Your task to perform on an android device: change the upload size in google photos Image 0: 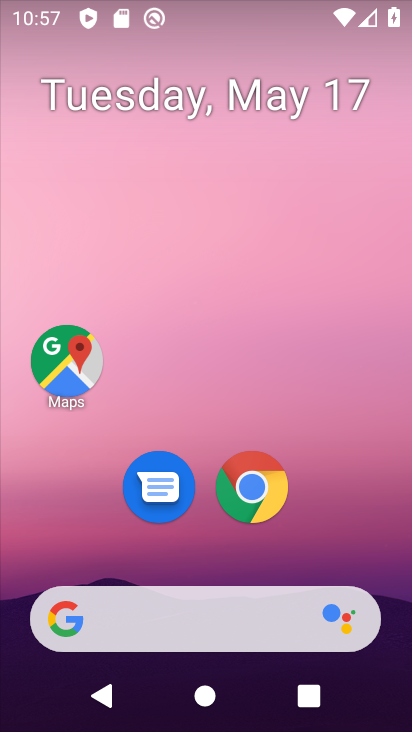
Step 0: press home button
Your task to perform on an android device: change the upload size in google photos Image 1: 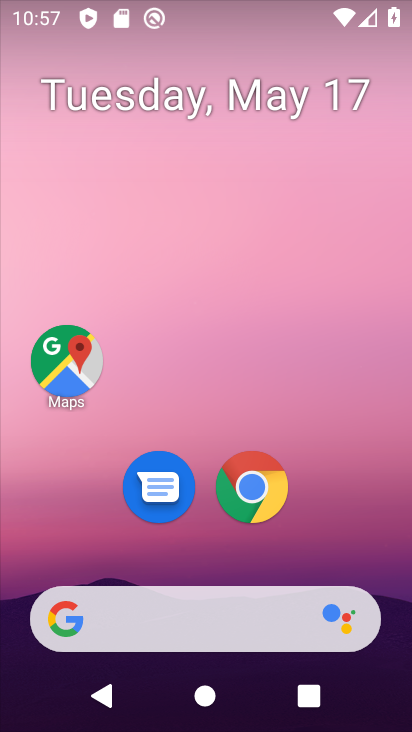
Step 1: drag from (248, 561) to (241, 81)
Your task to perform on an android device: change the upload size in google photos Image 2: 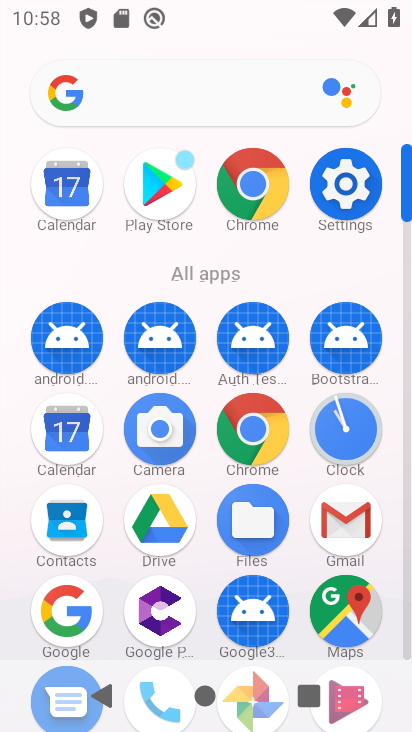
Step 2: click (408, 655)
Your task to perform on an android device: change the upload size in google photos Image 3: 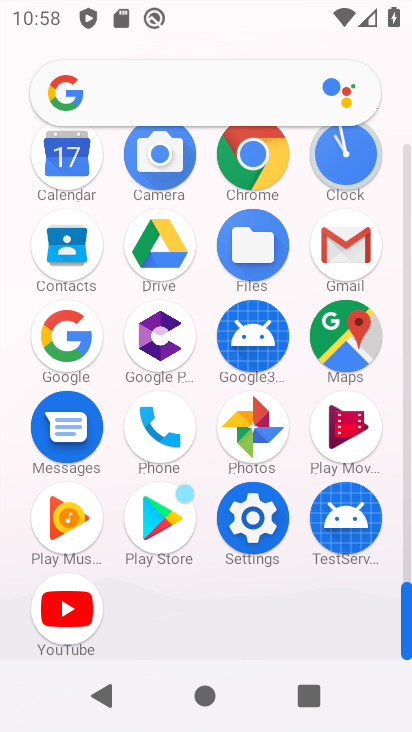
Step 3: click (247, 429)
Your task to perform on an android device: change the upload size in google photos Image 4: 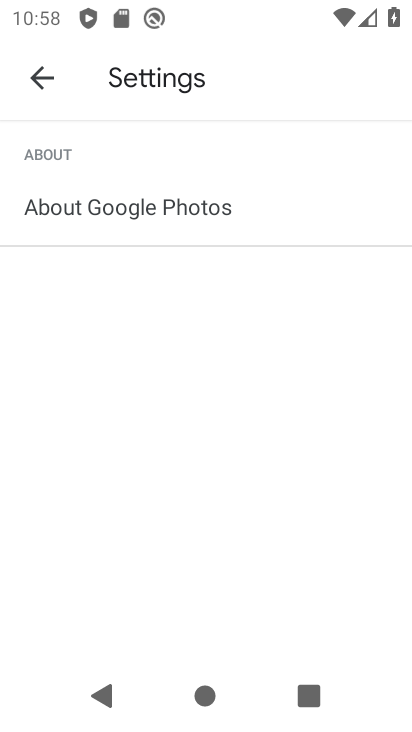
Step 4: click (31, 79)
Your task to perform on an android device: change the upload size in google photos Image 5: 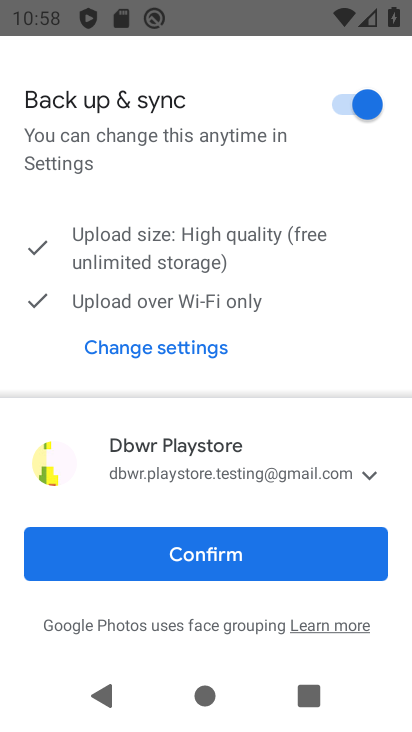
Step 5: click (122, 567)
Your task to perform on an android device: change the upload size in google photos Image 6: 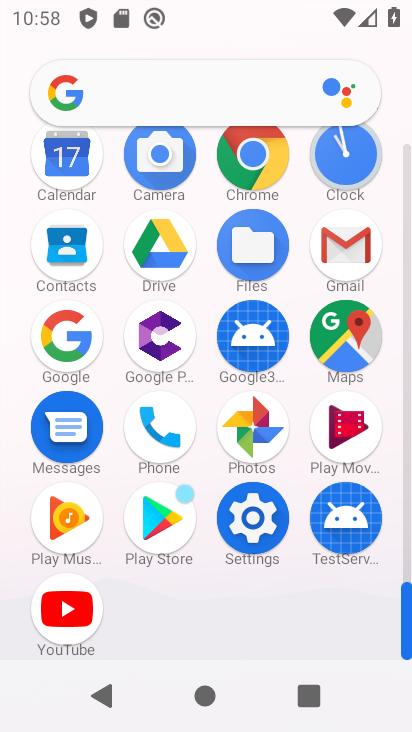
Step 6: click (255, 425)
Your task to perform on an android device: change the upload size in google photos Image 7: 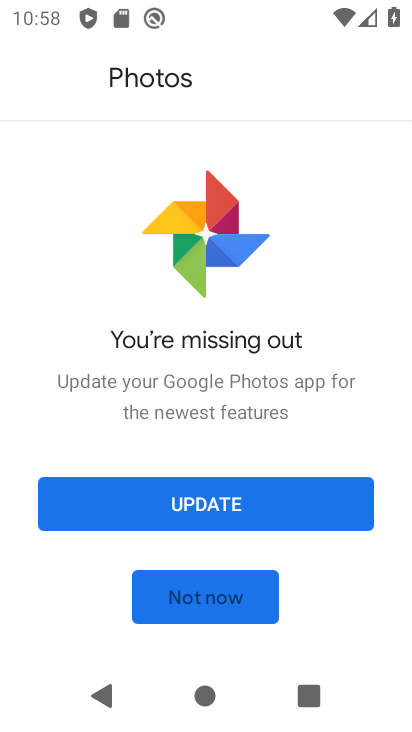
Step 7: click (137, 507)
Your task to perform on an android device: change the upload size in google photos Image 8: 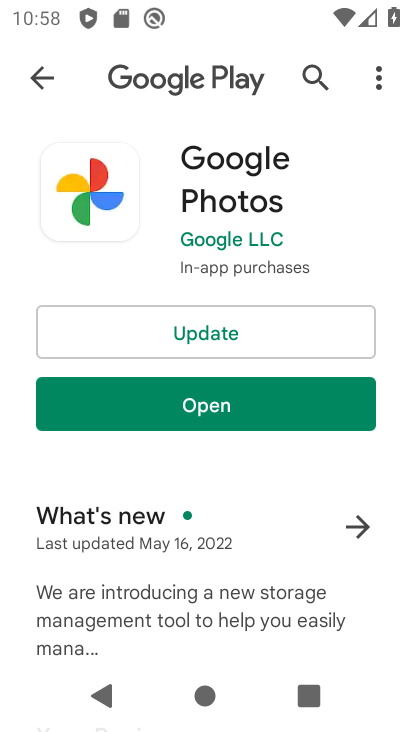
Step 8: click (165, 310)
Your task to perform on an android device: change the upload size in google photos Image 9: 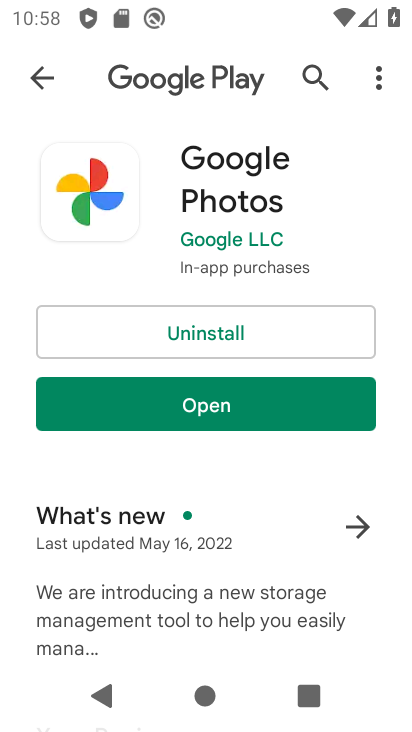
Step 9: click (182, 398)
Your task to perform on an android device: change the upload size in google photos Image 10: 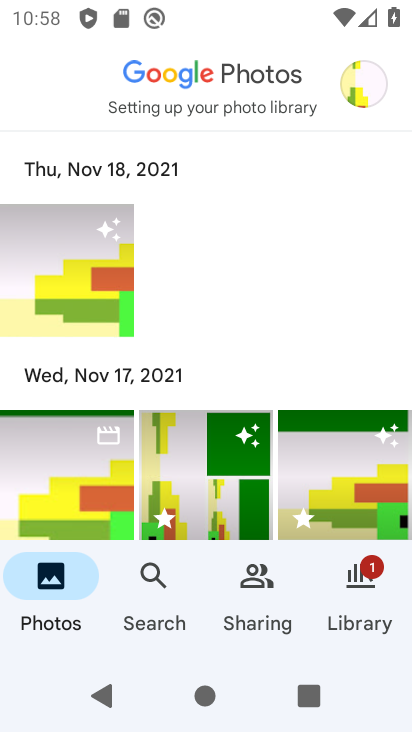
Step 10: click (360, 87)
Your task to perform on an android device: change the upload size in google photos Image 11: 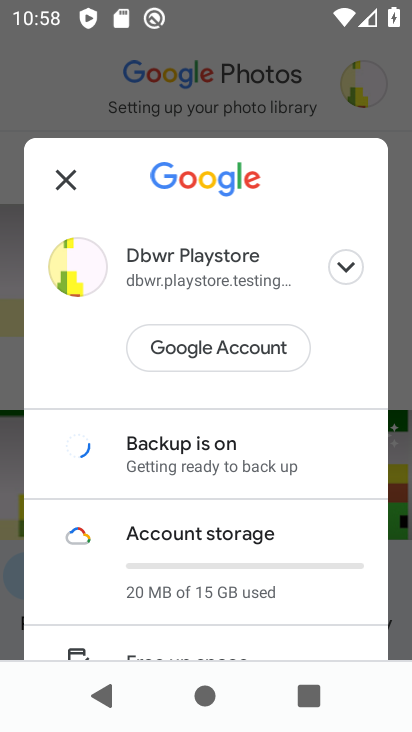
Step 11: drag from (172, 604) to (237, 289)
Your task to perform on an android device: change the upload size in google photos Image 12: 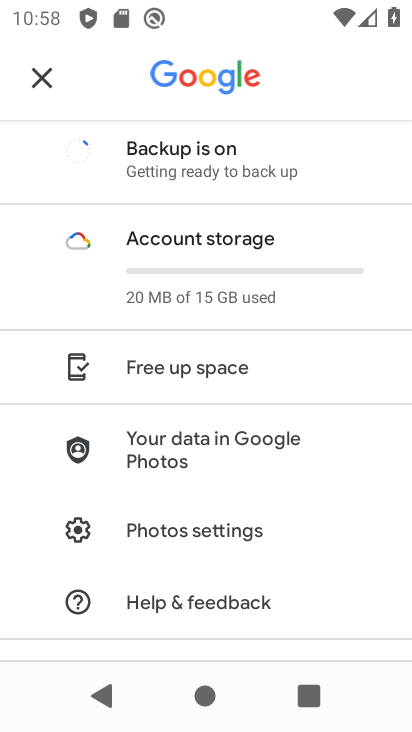
Step 12: click (179, 525)
Your task to perform on an android device: change the upload size in google photos Image 13: 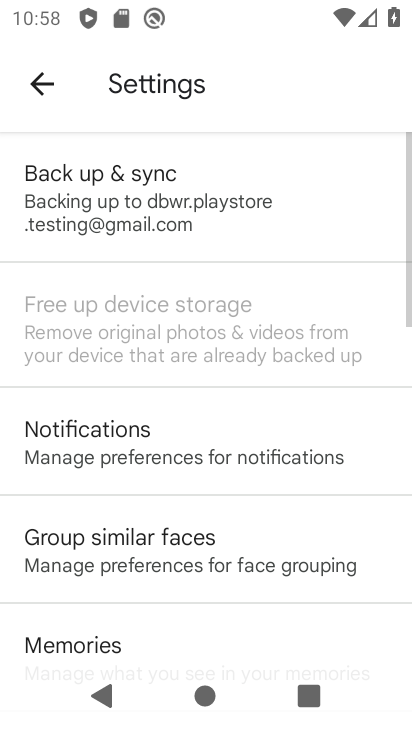
Step 13: click (176, 189)
Your task to perform on an android device: change the upload size in google photos Image 14: 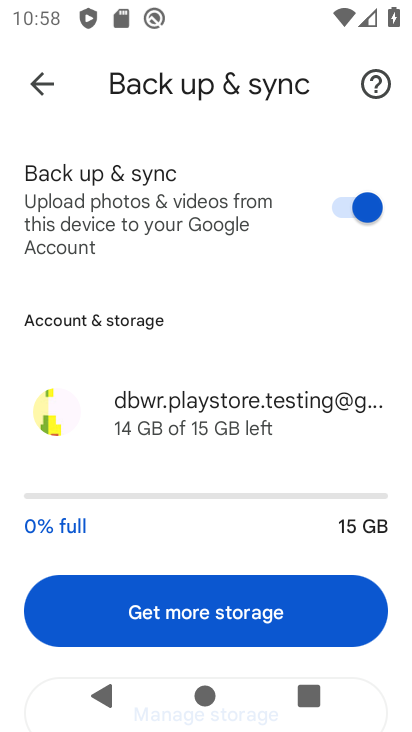
Step 14: drag from (141, 501) to (254, 149)
Your task to perform on an android device: change the upload size in google photos Image 15: 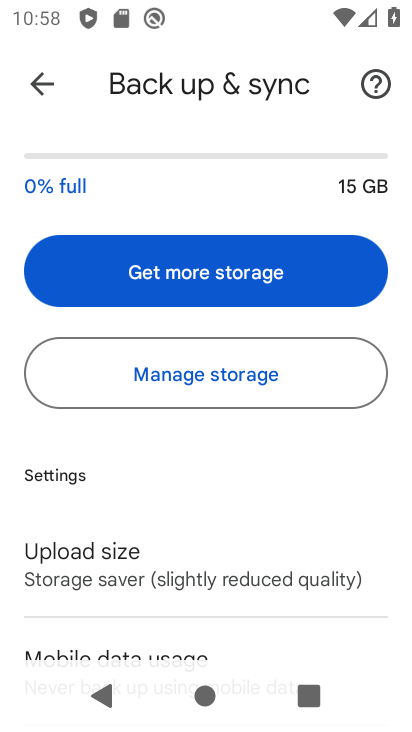
Step 15: click (175, 565)
Your task to perform on an android device: change the upload size in google photos Image 16: 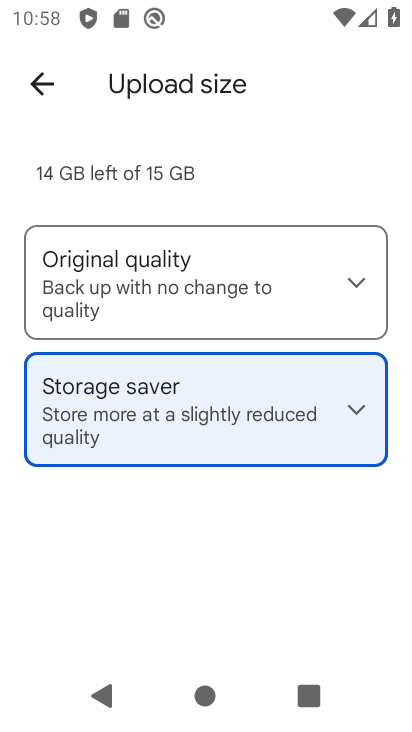
Step 16: click (176, 310)
Your task to perform on an android device: change the upload size in google photos Image 17: 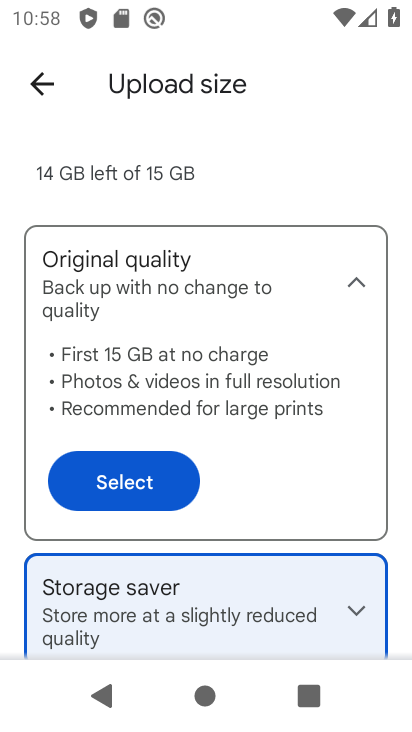
Step 17: click (146, 476)
Your task to perform on an android device: change the upload size in google photos Image 18: 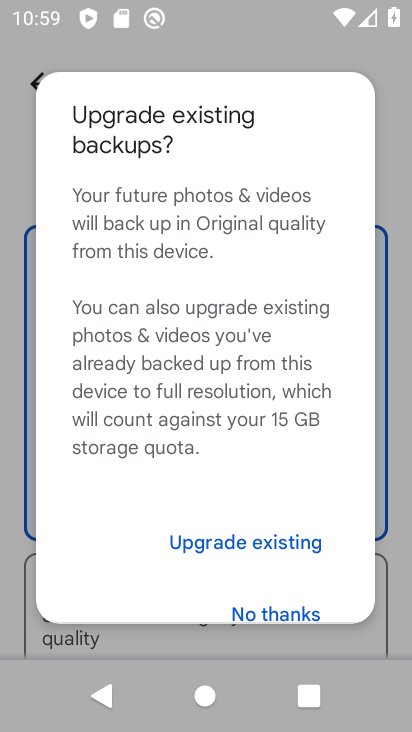
Step 18: click (178, 543)
Your task to perform on an android device: change the upload size in google photos Image 19: 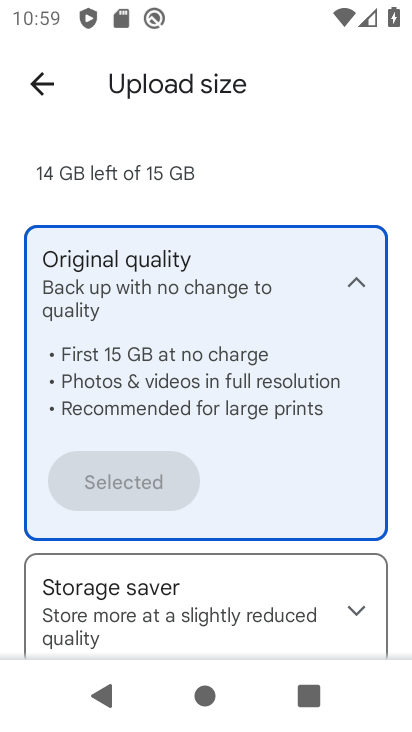
Step 19: task complete